Your task to perform on an android device: Go to Wikipedia Image 0: 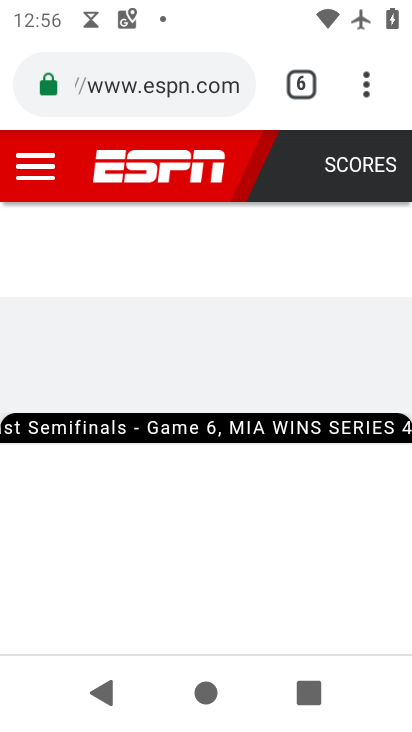
Step 0: press home button
Your task to perform on an android device: Go to Wikipedia Image 1: 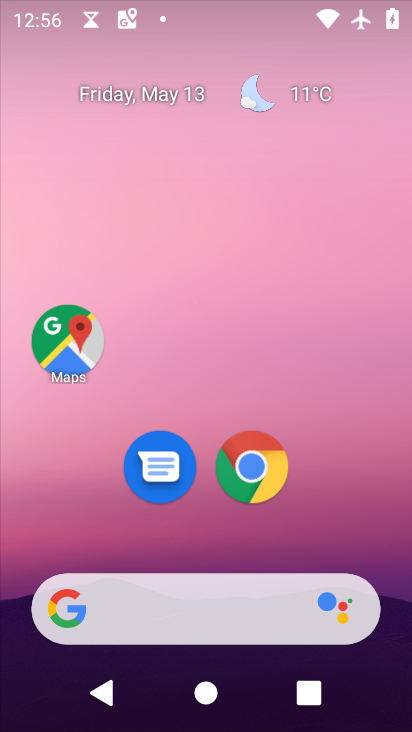
Step 1: click (247, 498)
Your task to perform on an android device: Go to Wikipedia Image 2: 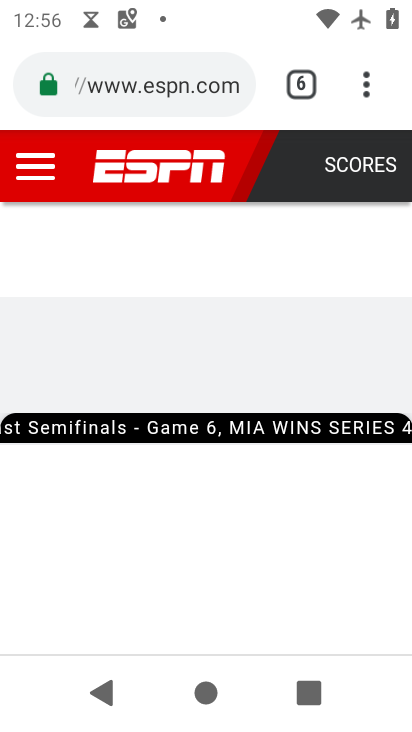
Step 2: click (301, 78)
Your task to perform on an android device: Go to Wikipedia Image 3: 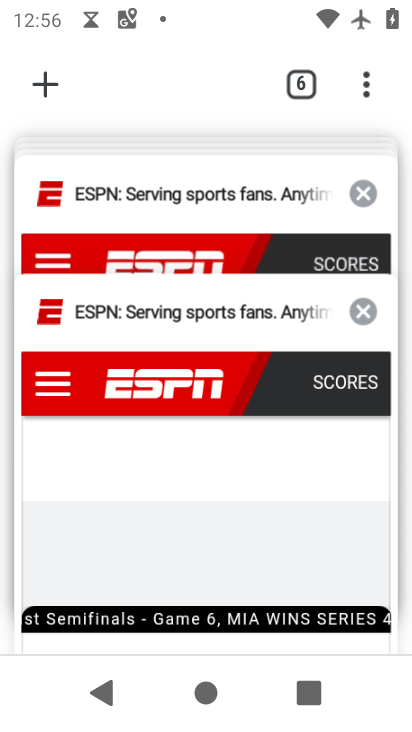
Step 3: drag from (206, 181) to (229, 552)
Your task to perform on an android device: Go to Wikipedia Image 4: 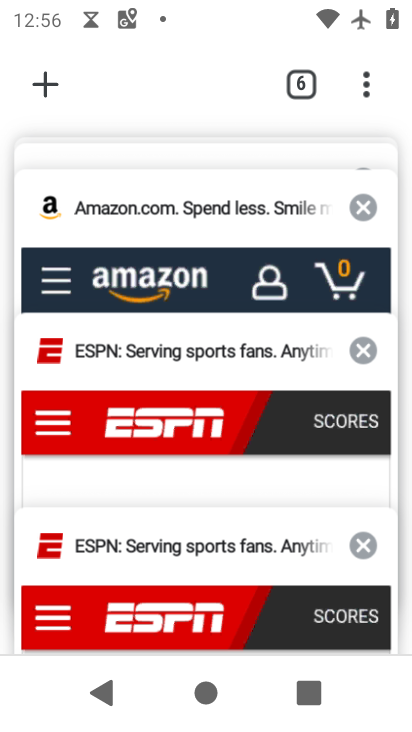
Step 4: drag from (167, 229) to (205, 594)
Your task to perform on an android device: Go to Wikipedia Image 5: 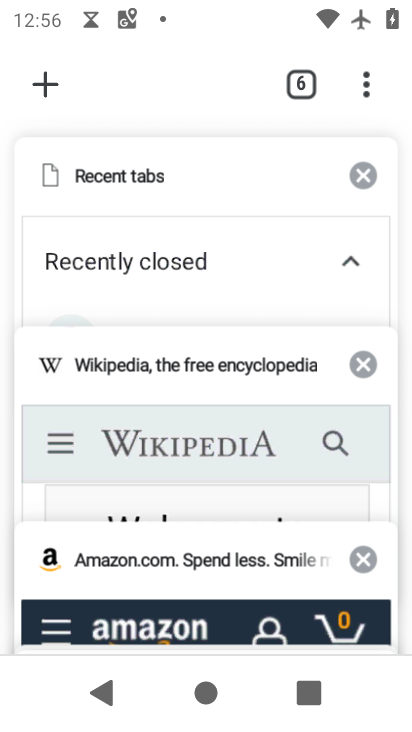
Step 5: click (175, 356)
Your task to perform on an android device: Go to Wikipedia Image 6: 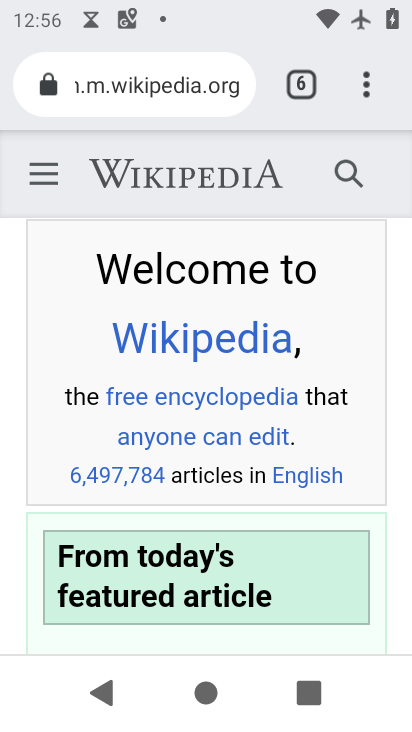
Step 6: task complete